Your task to perform on an android device: add a contact in the contacts app Image 0: 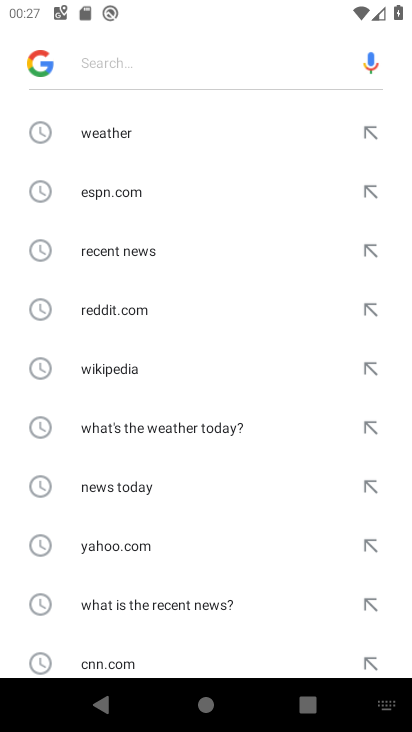
Step 0: press home button
Your task to perform on an android device: add a contact in the contacts app Image 1: 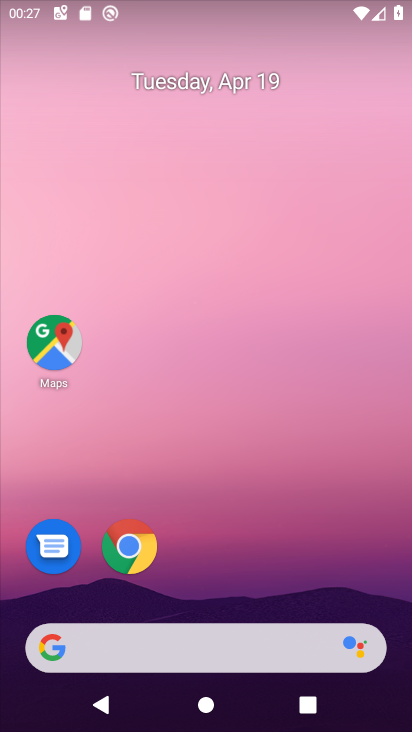
Step 1: drag from (212, 596) to (226, 69)
Your task to perform on an android device: add a contact in the contacts app Image 2: 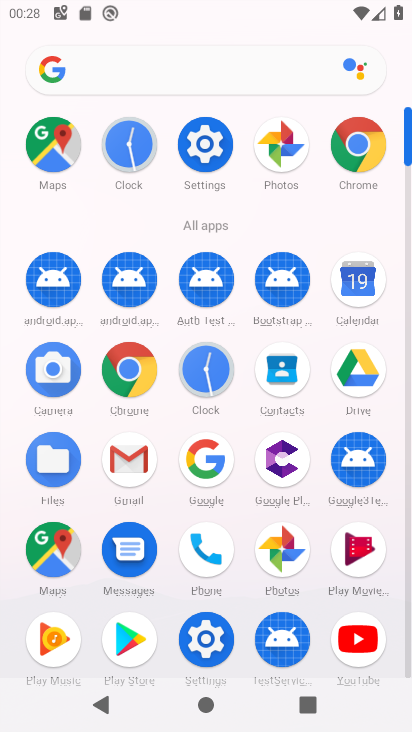
Step 2: click (279, 363)
Your task to perform on an android device: add a contact in the contacts app Image 3: 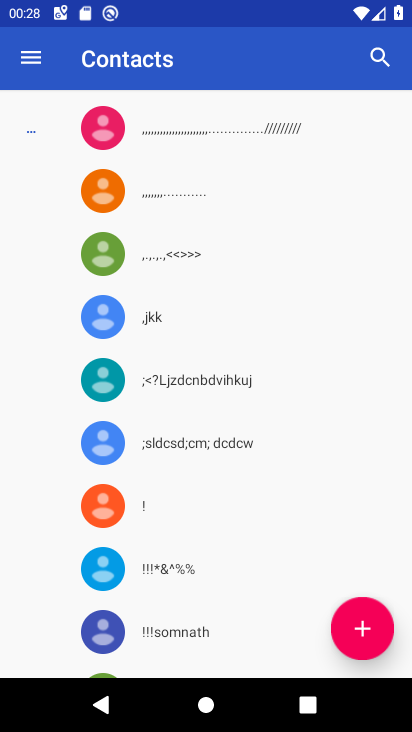
Step 3: click (364, 626)
Your task to perform on an android device: add a contact in the contacts app Image 4: 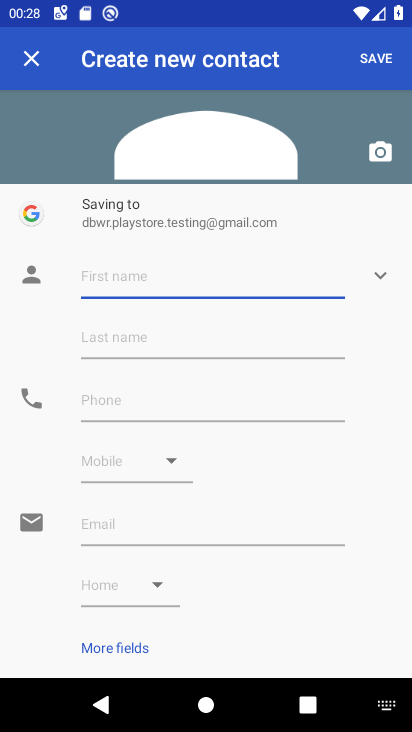
Step 4: type "hffhfd"
Your task to perform on an android device: add a contact in the contacts app Image 5: 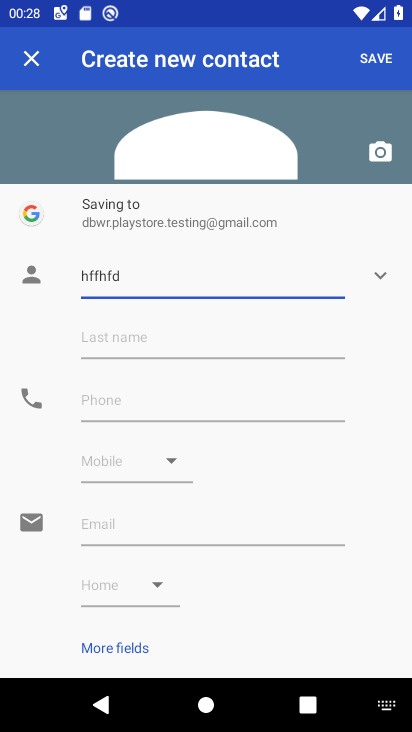
Step 5: click (383, 66)
Your task to perform on an android device: add a contact in the contacts app Image 6: 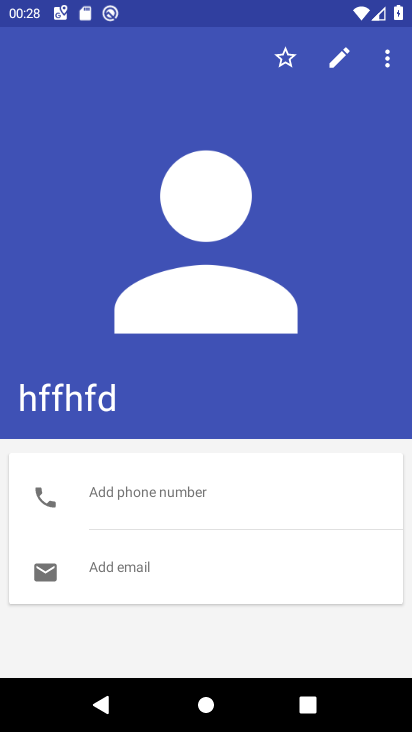
Step 6: task complete